Your task to perform on an android device: Find coffee shops on Maps Image 0: 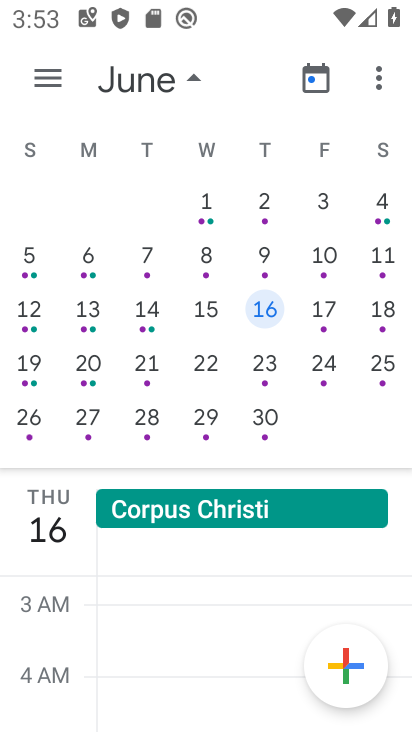
Step 0: press home button
Your task to perform on an android device: Find coffee shops on Maps Image 1: 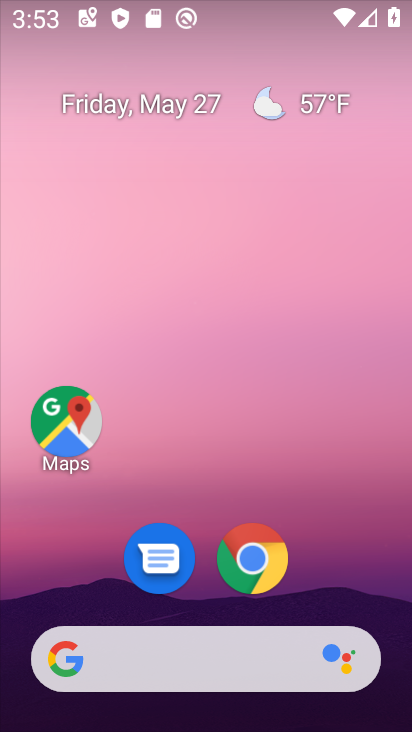
Step 1: click (60, 442)
Your task to perform on an android device: Find coffee shops on Maps Image 2: 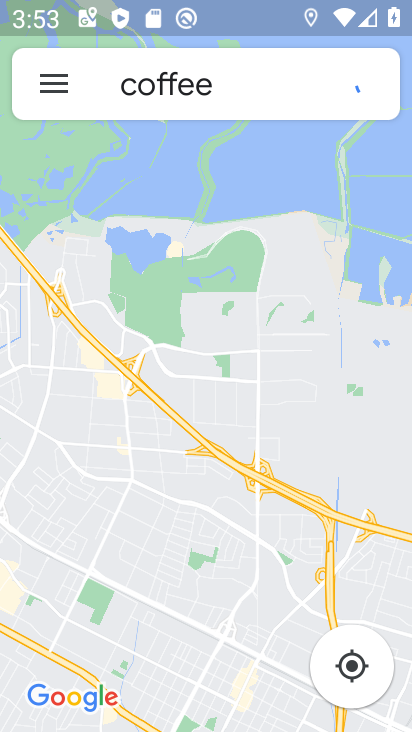
Step 2: task complete